Your task to perform on an android device: Is it going to rain tomorrow? Image 0: 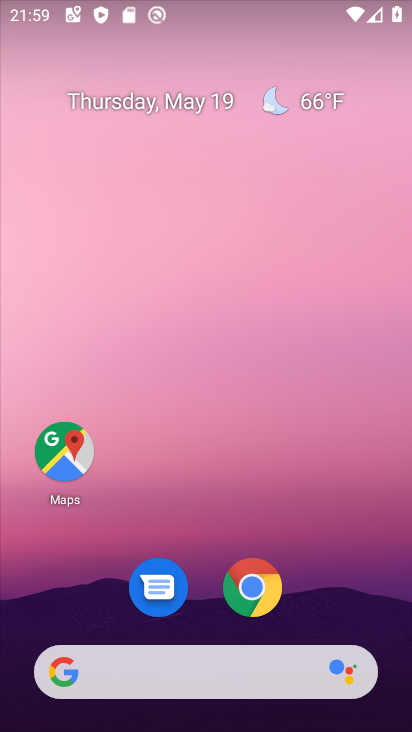
Step 0: press home button
Your task to perform on an android device: Is it going to rain tomorrow? Image 1: 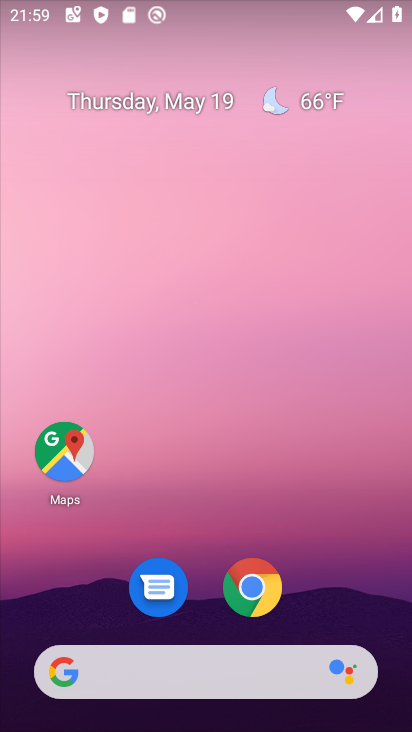
Step 1: click (243, 671)
Your task to perform on an android device: Is it going to rain tomorrow? Image 2: 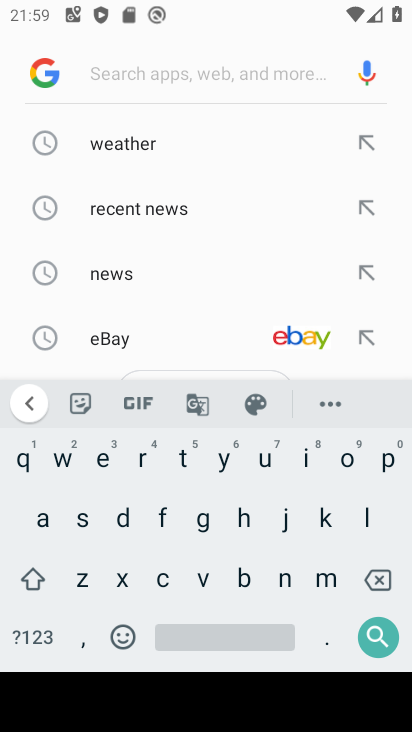
Step 2: click (137, 144)
Your task to perform on an android device: Is it going to rain tomorrow? Image 3: 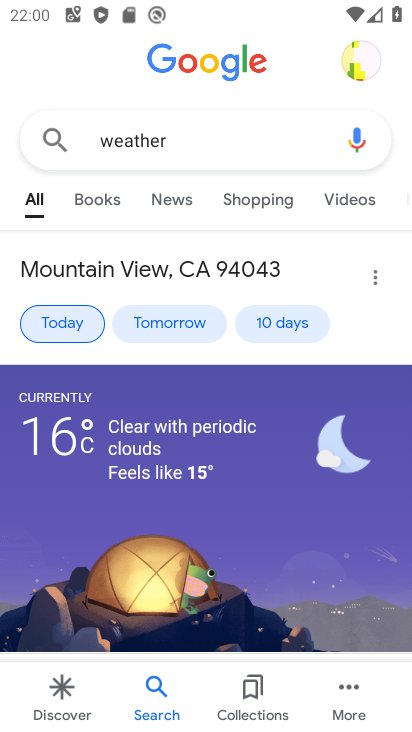
Step 3: click (160, 326)
Your task to perform on an android device: Is it going to rain tomorrow? Image 4: 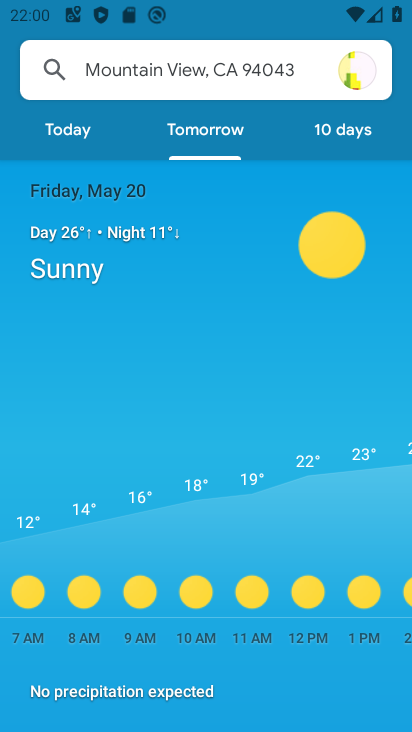
Step 4: task complete